Your task to perform on an android device: Go to Yahoo.com Image 0: 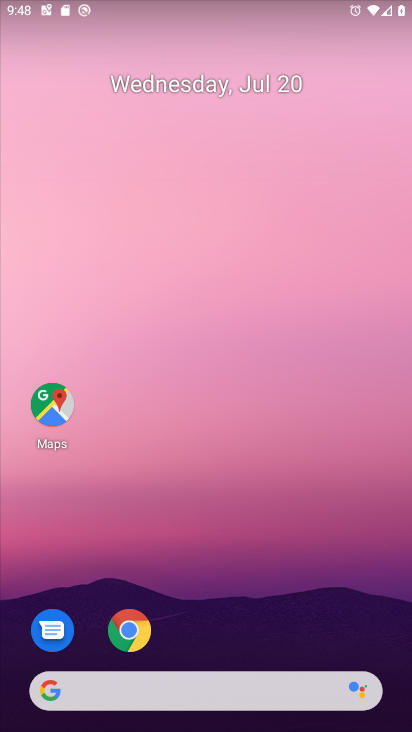
Step 0: click (137, 630)
Your task to perform on an android device: Go to Yahoo.com Image 1: 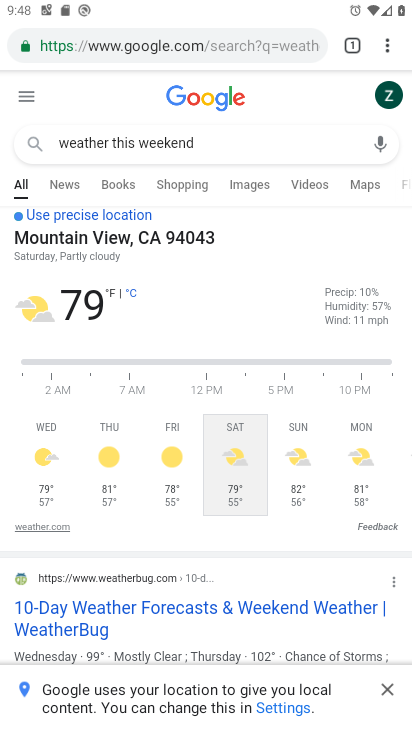
Step 1: click (215, 43)
Your task to perform on an android device: Go to Yahoo.com Image 2: 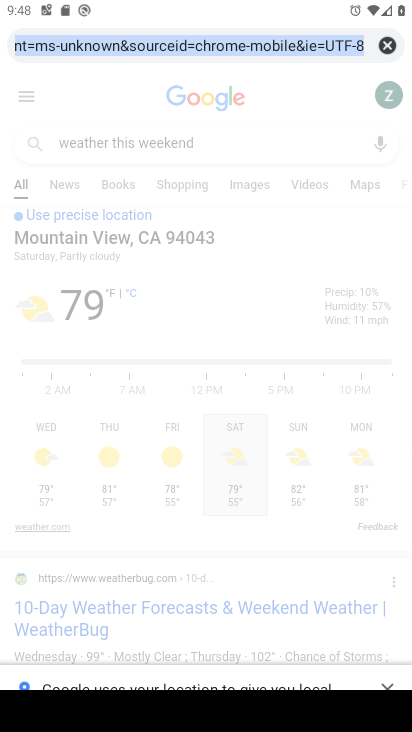
Step 2: type "yahoo.com"
Your task to perform on an android device: Go to Yahoo.com Image 3: 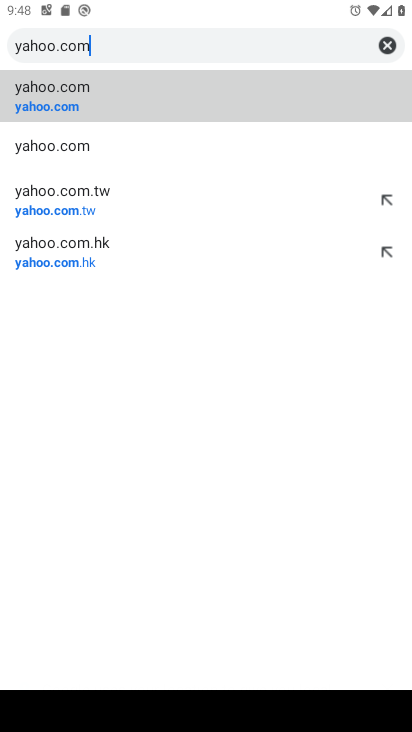
Step 3: click (200, 90)
Your task to perform on an android device: Go to Yahoo.com Image 4: 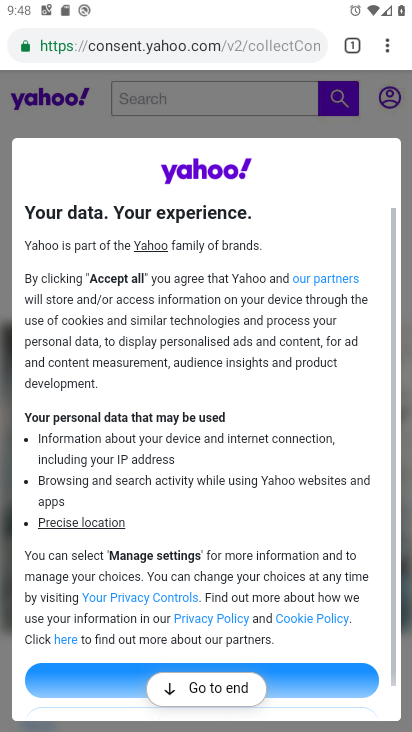
Step 4: task complete